Your task to perform on an android device: show emergency info Image 0: 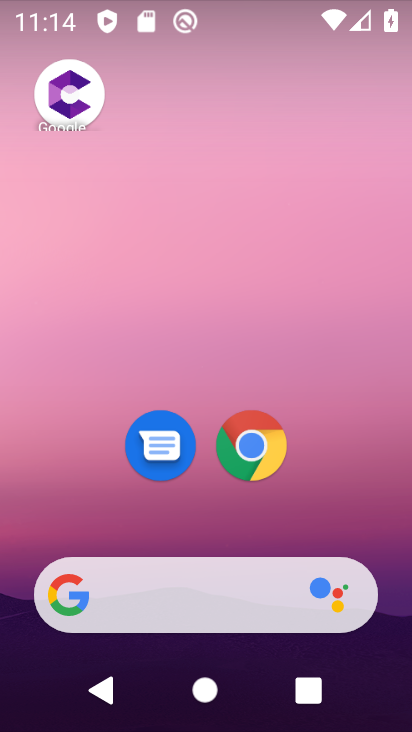
Step 0: drag from (212, 523) to (207, 40)
Your task to perform on an android device: show emergency info Image 1: 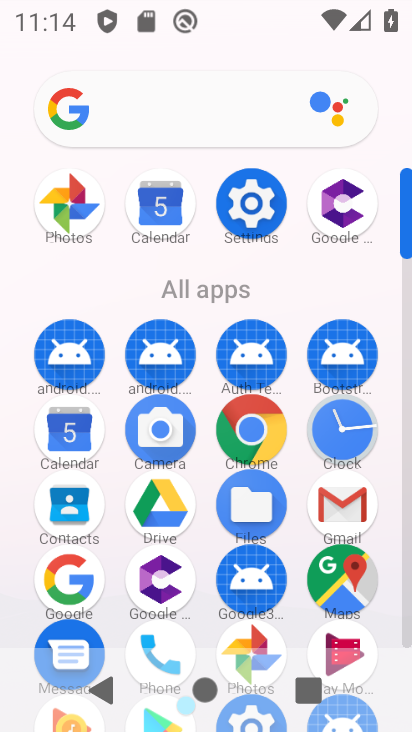
Step 1: click (244, 204)
Your task to perform on an android device: show emergency info Image 2: 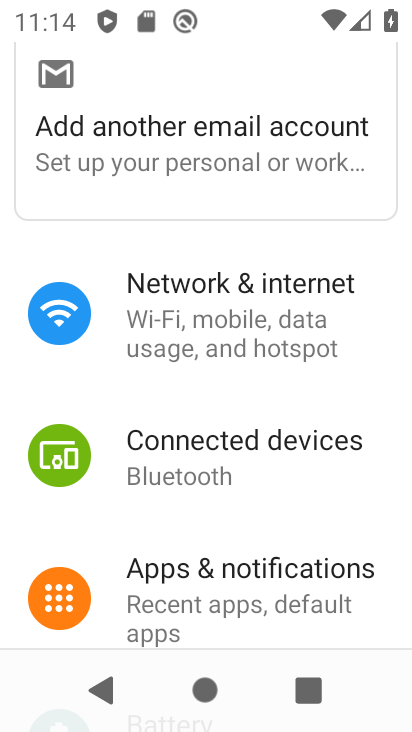
Step 2: drag from (269, 624) to (283, 75)
Your task to perform on an android device: show emergency info Image 3: 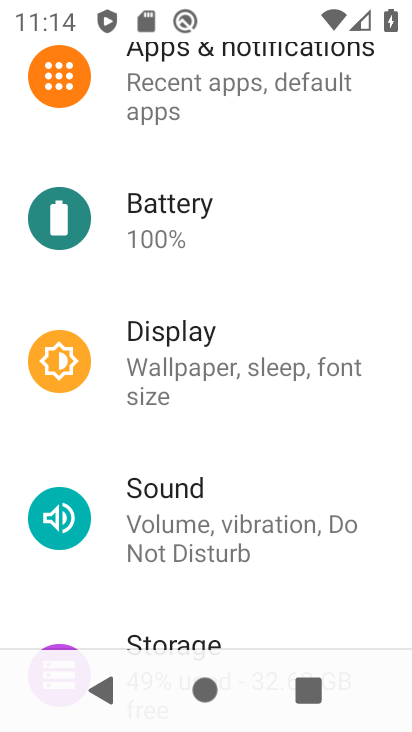
Step 3: drag from (267, 547) to (213, 62)
Your task to perform on an android device: show emergency info Image 4: 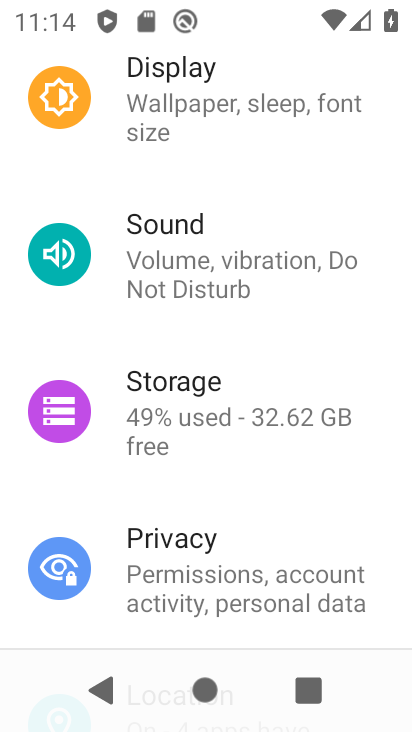
Step 4: drag from (256, 508) to (228, 54)
Your task to perform on an android device: show emergency info Image 5: 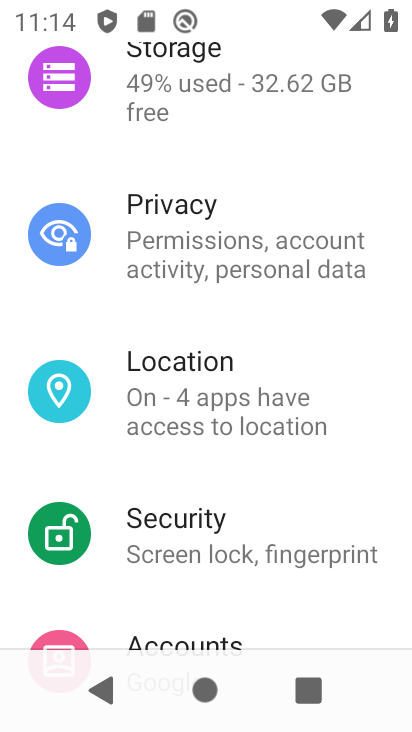
Step 5: drag from (262, 564) to (246, 50)
Your task to perform on an android device: show emergency info Image 6: 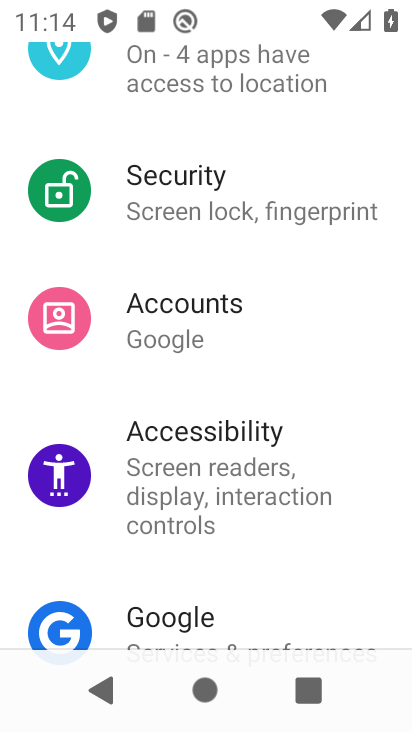
Step 6: drag from (260, 563) to (242, 48)
Your task to perform on an android device: show emergency info Image 7: 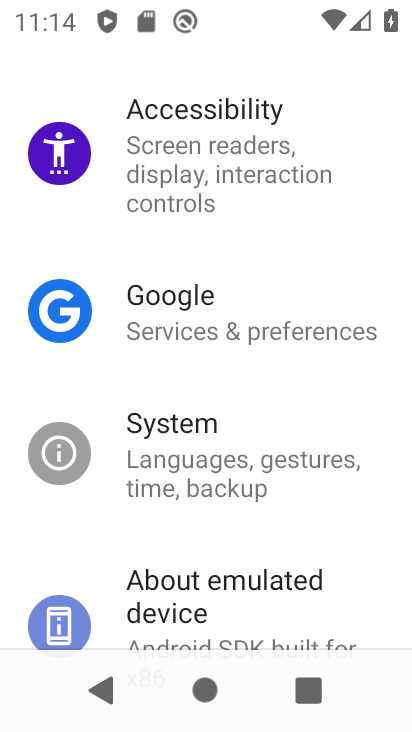
Step 7: drag from (260, 546) to (253, 60)
Your task to perform on an android device: show emergency info Image 8: 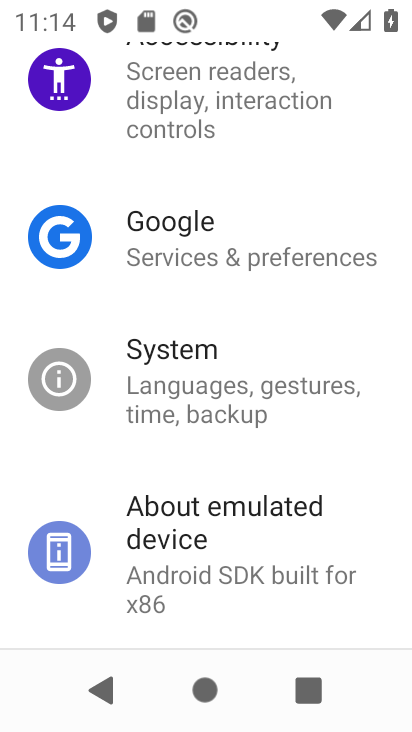
Step 8: click (233, 531)
Your task to perform on an android device: show emergency info Image 9: 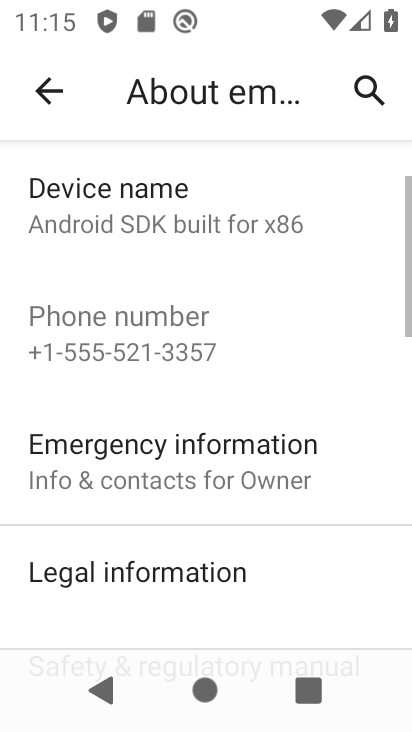
Step 9: click (248, 481)
Your task to perform on an android device: show emergency info Image 10: 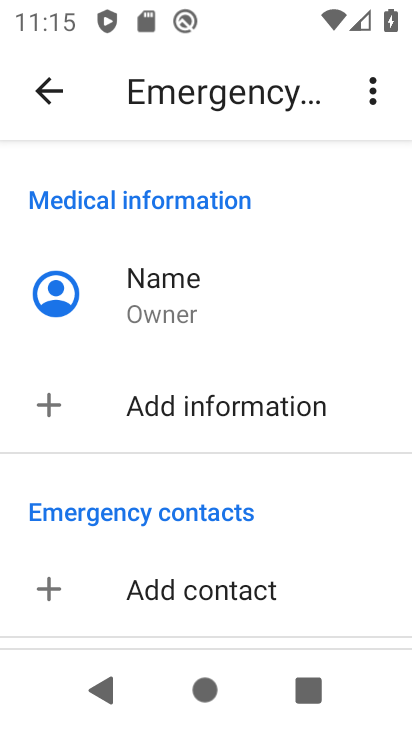
Step 10: task complete